Your task to perform on an android device: Open CNN.com Image 0: 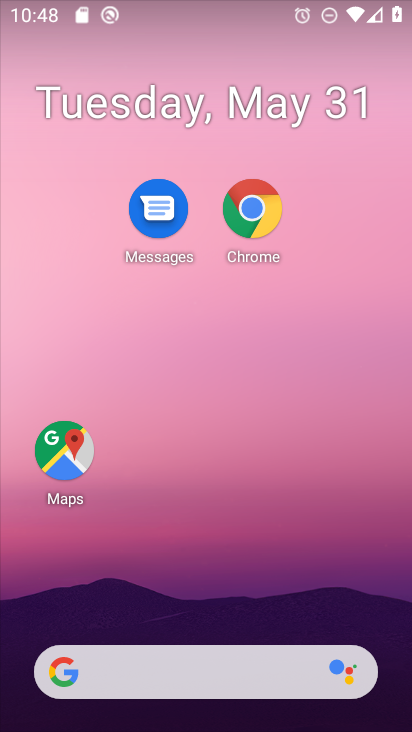
Step 0: press home button
Your task to perform on an android device: Open CNN.com Image 1: 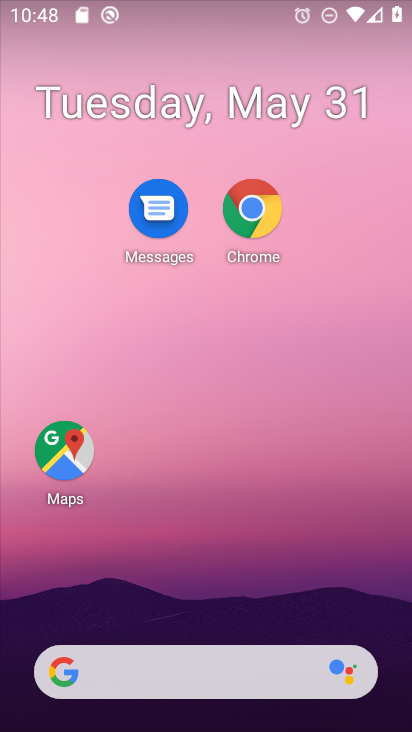
Step 1: click (249, 194)
Your task to perform on an android device: Open CNN.com Image 2: 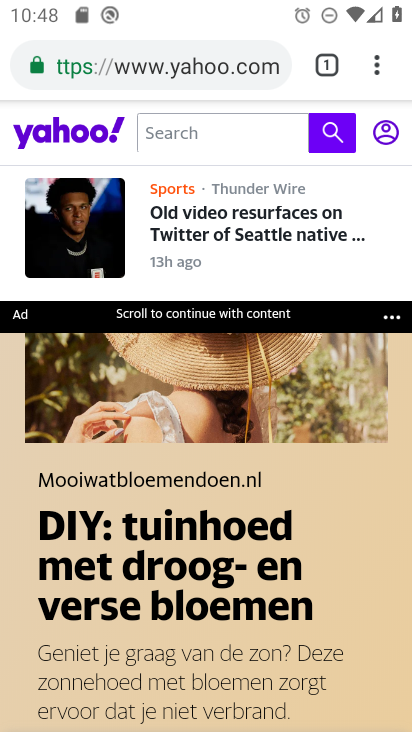
Step 2: click (319, 61)
Your task to perform on an android device: Open CNN.com Image 3: 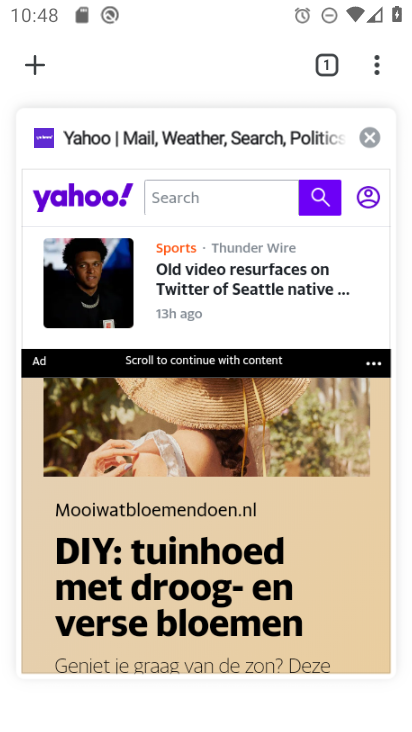
Step 3: click (375, 135)
Your task to perform on an android device: Open CNN.com Image 4: 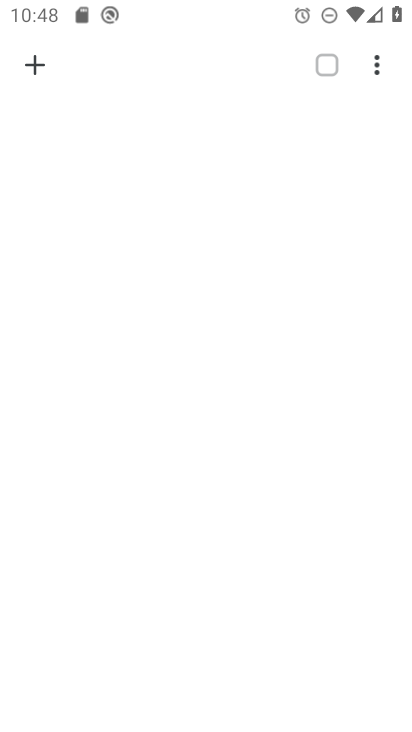
Step 4: click (37, 68)
Your task to perform on an android device: Open CNN.com Image 5: 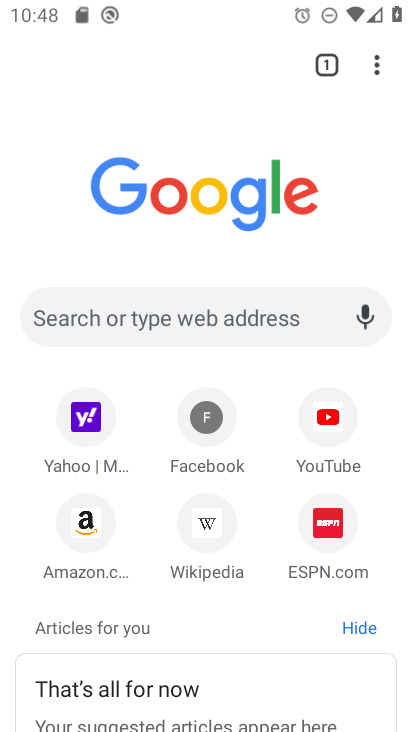
Step 5: click (111, 314)
Your task to perform on an android device: Open CNN.com Image 6: 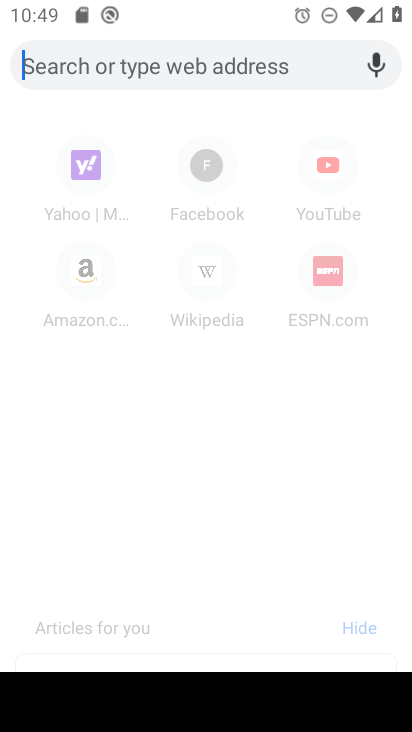
Step 6: type "cnn.com"
Your task to perform on an android device: Open CNN.com Image 7: 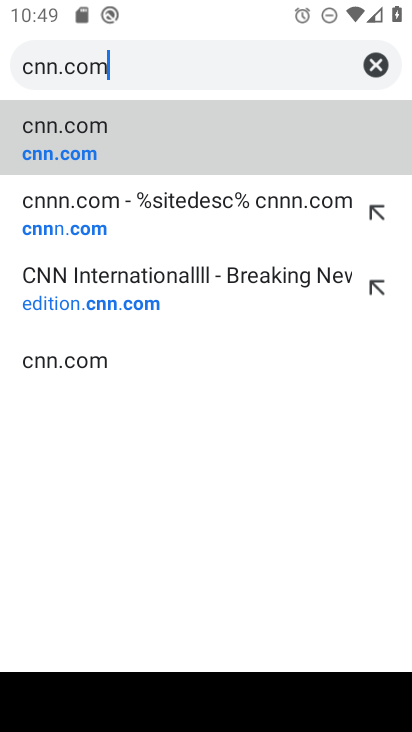
Step 7: click (62, 140)
Your task to perform on an android device: Open CNN.com Image 8: 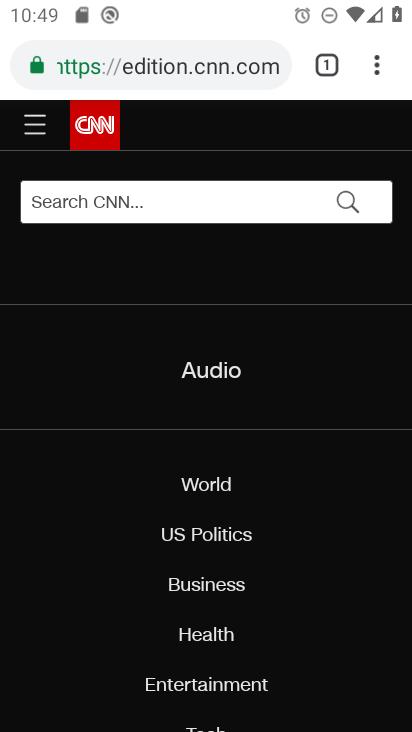
Step 8: task complete